Your task to perform on an android device: toggle priority inbox in the gmail app Image 0: 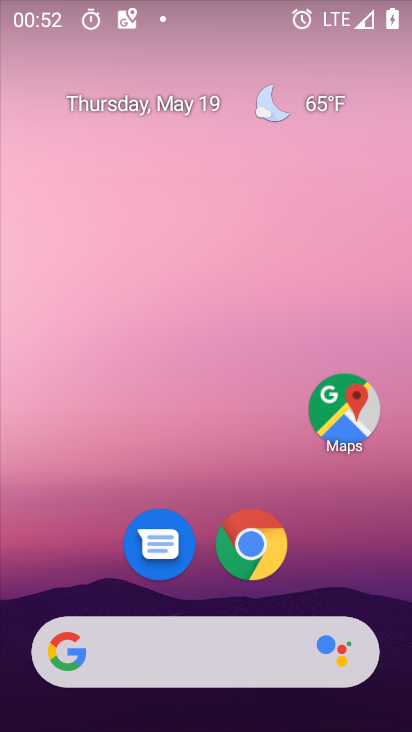
Step 0: drag from (363, 558) to (325, 113)
Your task to perform on an android device: toggle priority inbox in the gmail app Image 1: 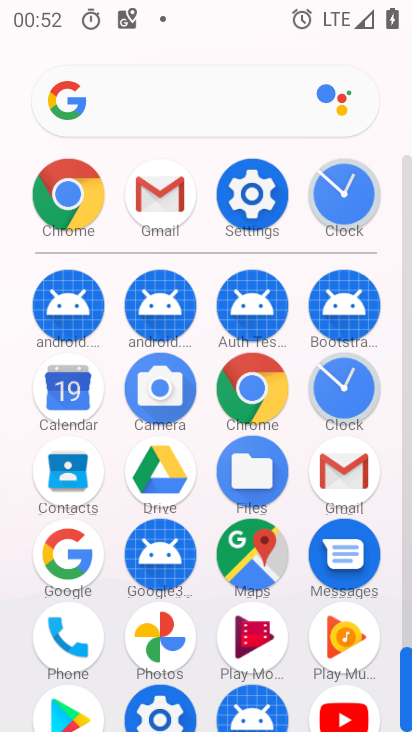
Step 1: click (334, 476)
Your task to perform on an android device: toggle priority inbox in the gmail app Image 2: 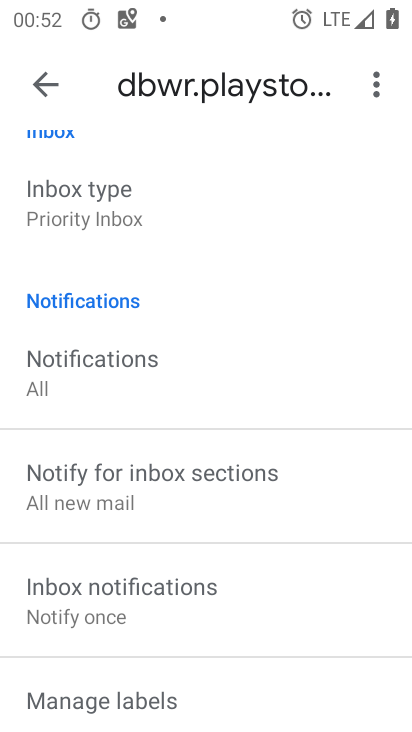
Step 2: task complete